Your task to perform on an android device: turn on bluetooth scan Image 0: 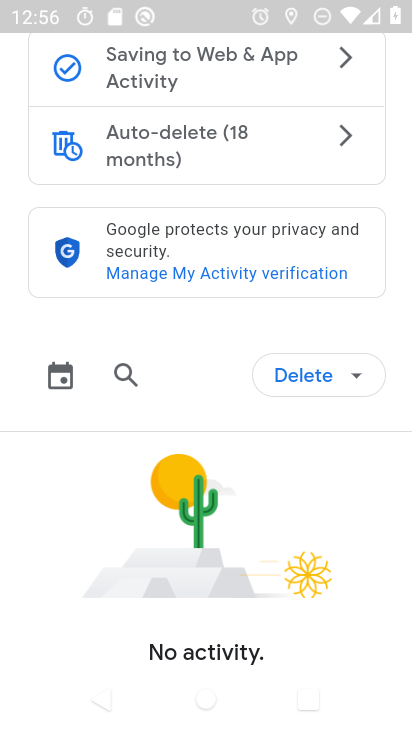
Step 0: press home button
Your task to perform on an android device: turn on bluetooth scan Image 1: 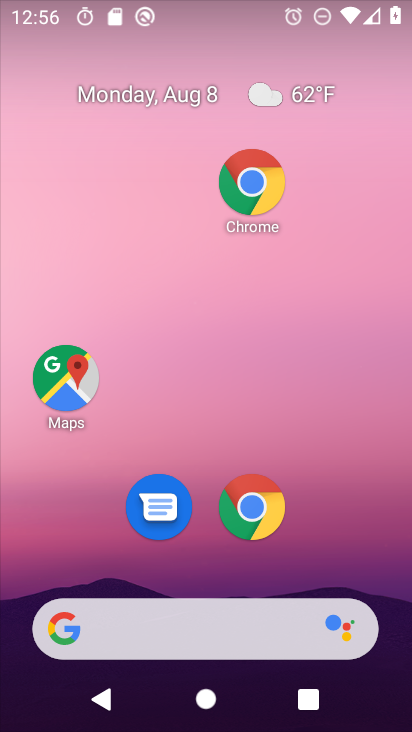
Step 1: drag from (323, 539) to (293, 83)
Your task to perform on an android device: turn on bluetooth scan Image 2: 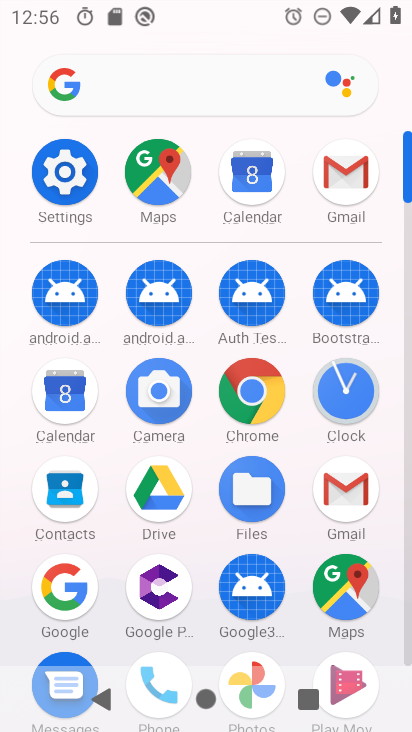
Step 2: click (46, 181)
Your task to perform on an android device: turn on bluetooth scan Image 3: 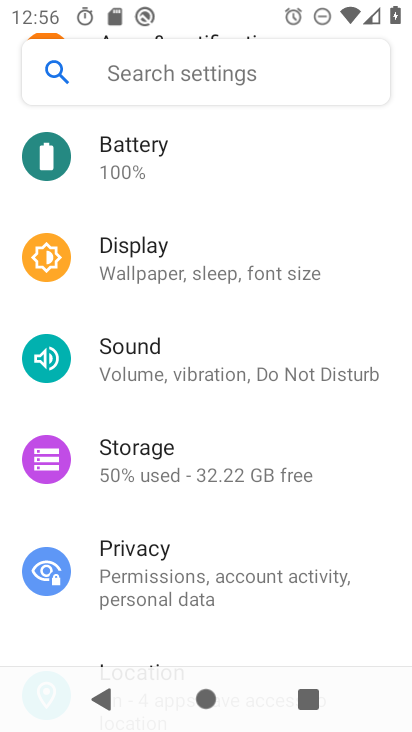
Step 3: drag from (248, 159) to (267, 701)
Your task to perform on an android device: turn on bluetooth scan Image 4: 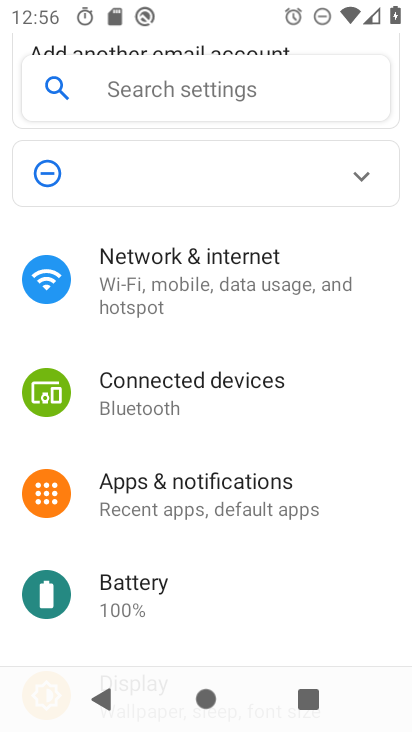
Step 4: click (199, 259)
Your task to perform on an android device: turn on bluetooth scan Image 5: 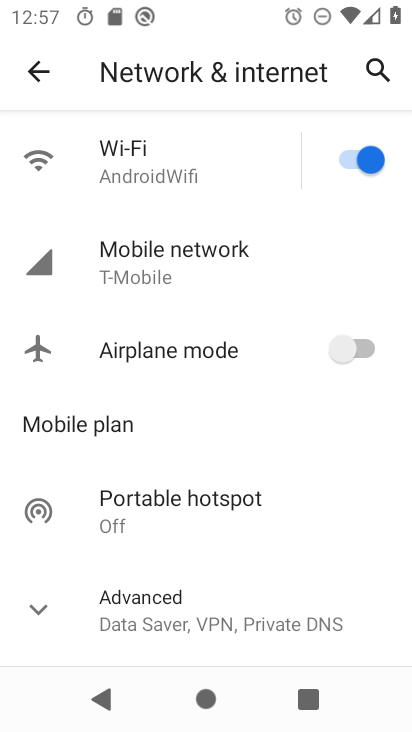
Step 5: click (38, 53)
Your task to perform on an android device: turn on bluetooth scan Image 6: 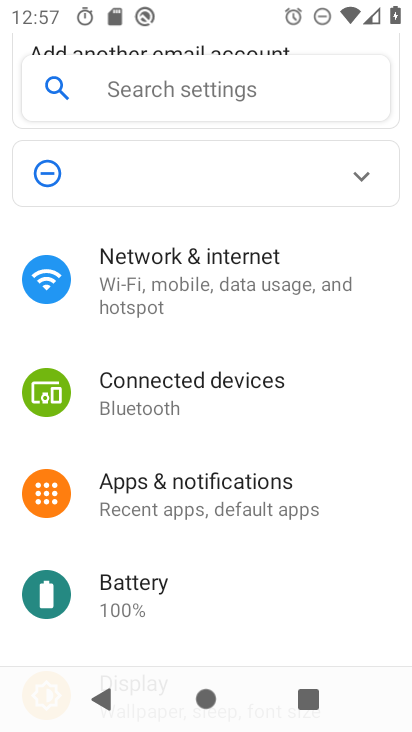
Step 6: drag from (268, 527) to (303, 121)
Your task to perform on an android device: turn on bluetooth scan Image 7: 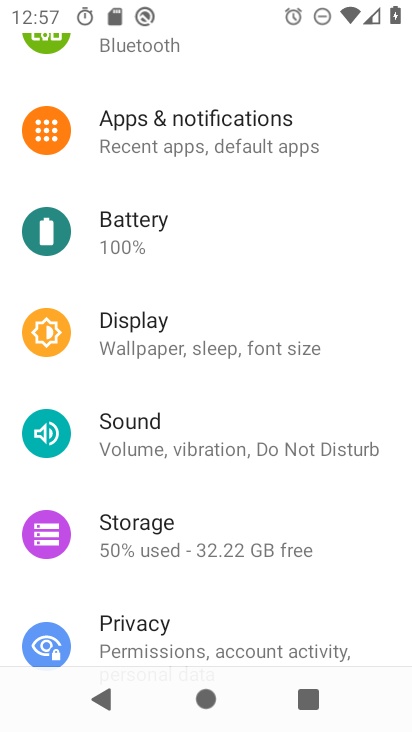
Step 7: drag from (244, 509) to (279, 153)
Your task to perform on an android device: turn on bluetooth scan Image 8: 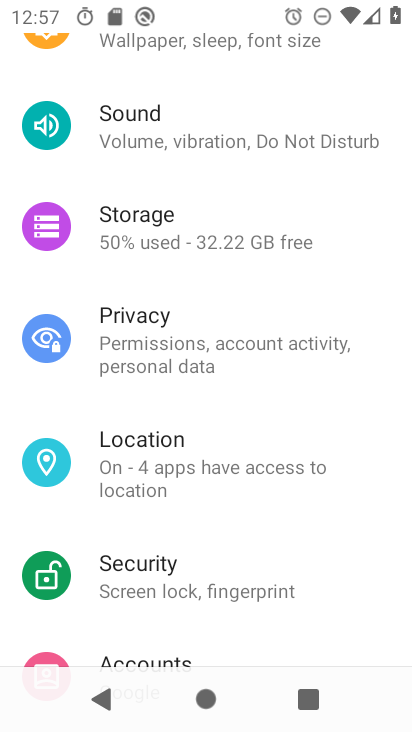
Step 8: click (180, 449)
Your task to perform on an android device: turn on bluetooth scan Image 9: 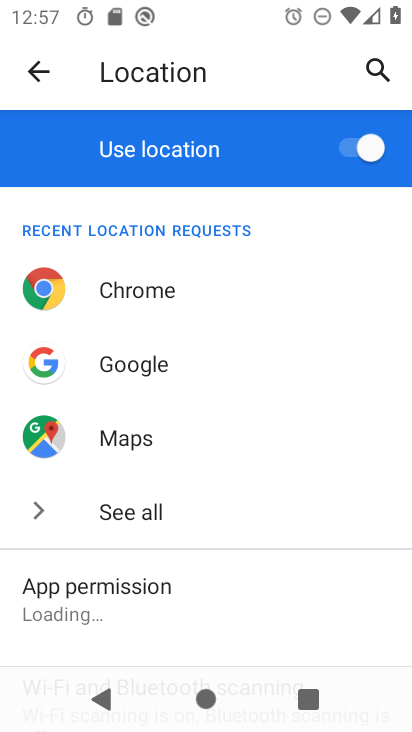
Step 9: drag from (287, 599) to (363, 125)
Your task to perform on an android device: turn on bluetooth scan Image 10: 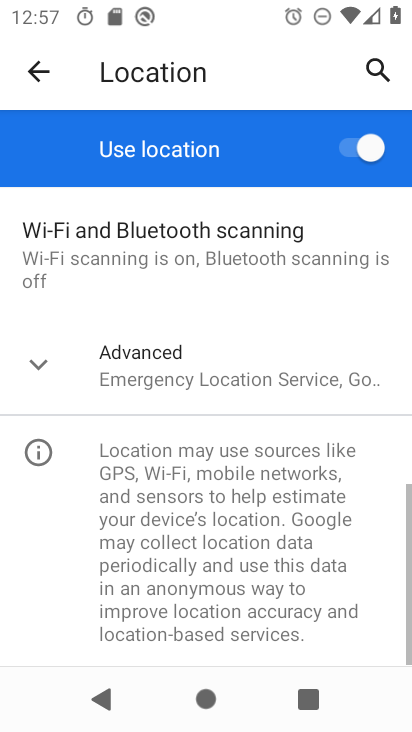
Step 10: click (240, 397)
Your task to perform on an android device: turn on bluetooth scan Image 11: 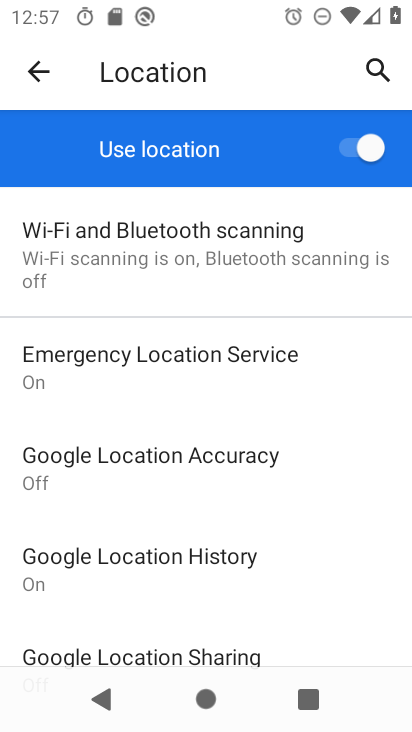
Step 11: click (180, 260)
Your task to perform on an android device: turn on bluetooth scan Image 12: 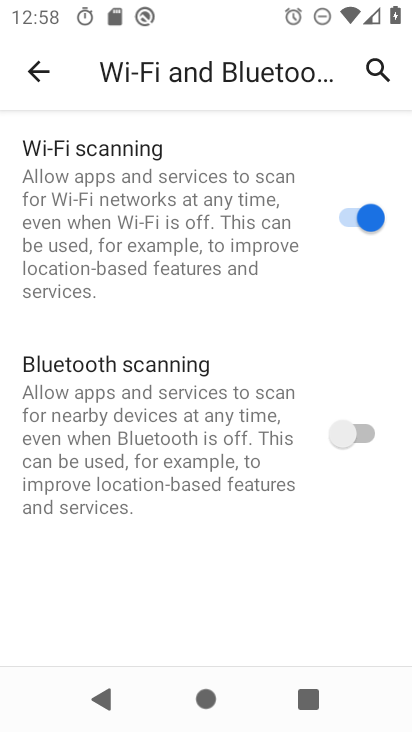
Step 12: click (364, 430)
Your task to perform on an android device: turn on bluetooth scan Image 13: 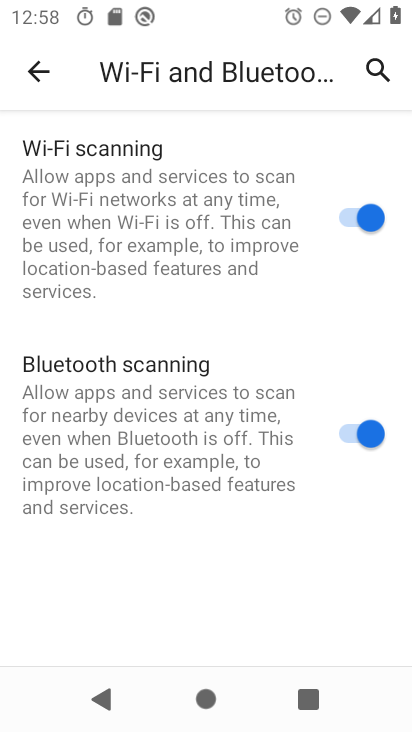
Step 13: task complete